Your task to perform on an android device: turn on notifications settings in the gmail app Image 0: 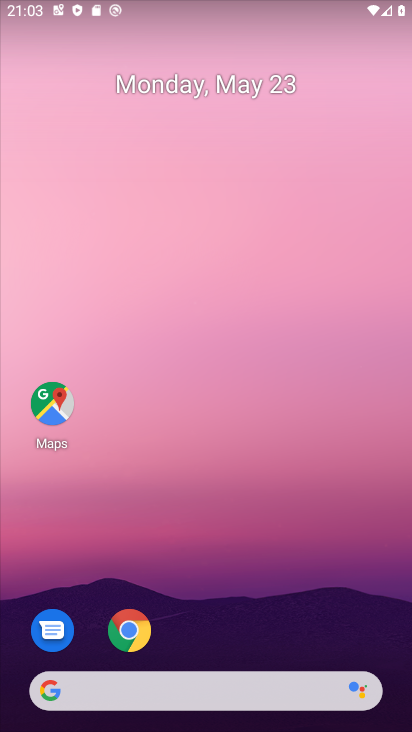
Step 0: drag from (190, 669) to (258, 299)
Your task to perform on an android device: turn on notifications settings in the gmail app Image 1: 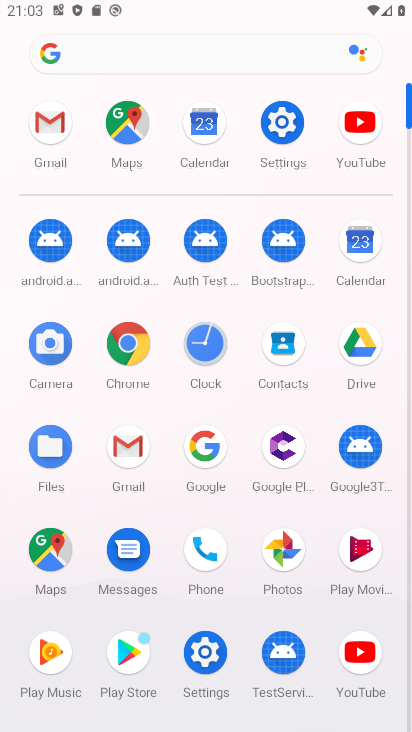
Step 1: click (140, 447)
Your task to perform on an android device: turn on notifications settings in the gmail app Image 2: 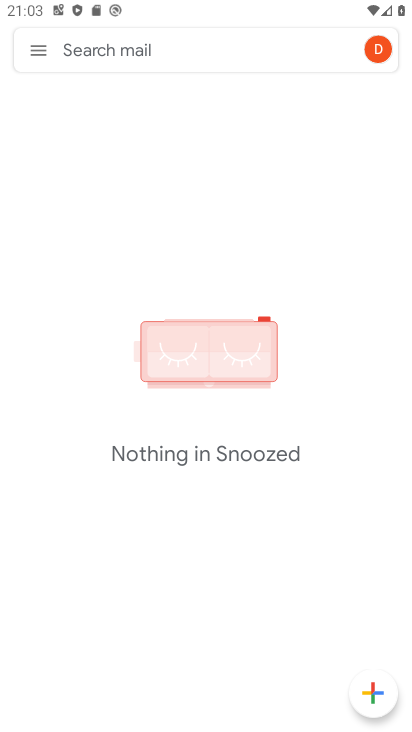
Step 2: click (45, 43)
Your task to perform on an android device: turn on notifications settings in the gmail app Image 3: 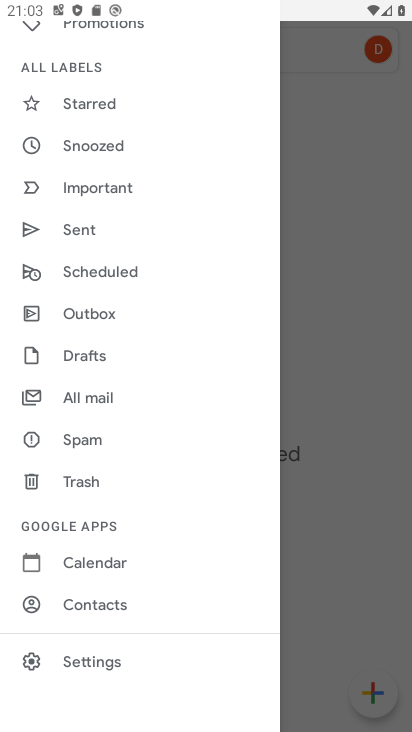
Step 3: click (81, 659)
Your task to perform on an android device: turn on notifications settings in the gmail app Image 4: 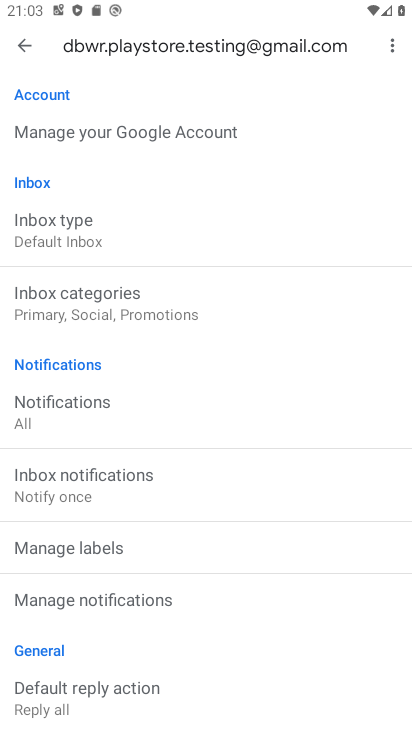
Step 4: click (19, 47)
Your task to perform on an android device: turn on notifications settings in the gmail app Image 5: 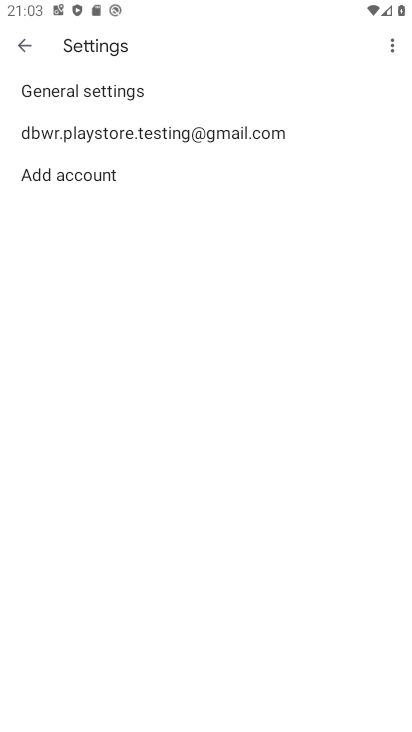
Step 5: click (57, 90)
Your task to perform on an android device: turn on notifications settings in the gmail app Image 6: 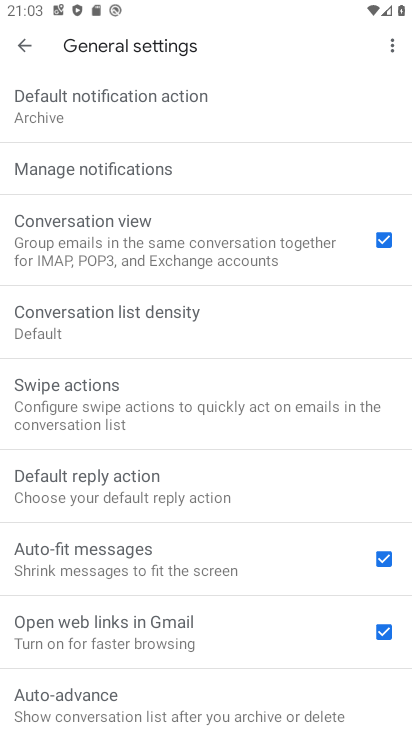
Step 6: click (62, 177)
Your task to perform on an android device: turn on notifications settings in the gmail app Image 7: 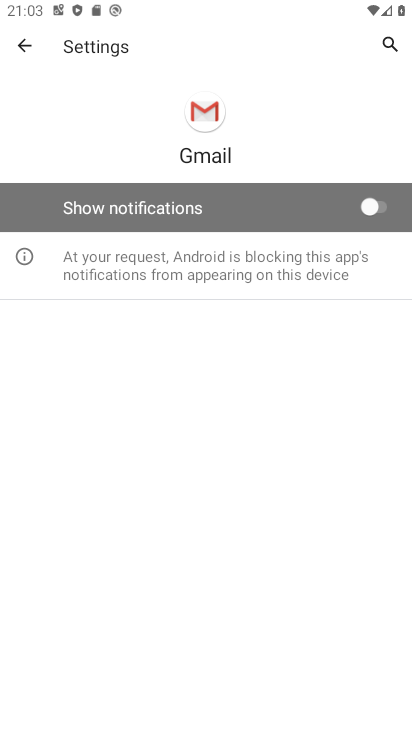
Step 7: click (373, 206)
Your task to perform on an android device: turn on notifications settings in the gmail app Image 8: 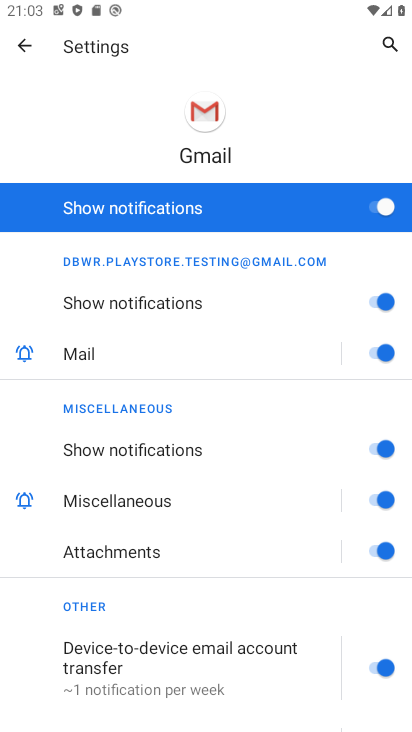
Step 8: task complete